Your task to perform on an android device: read, delete, or share a saved page in the chrome app Image 0: 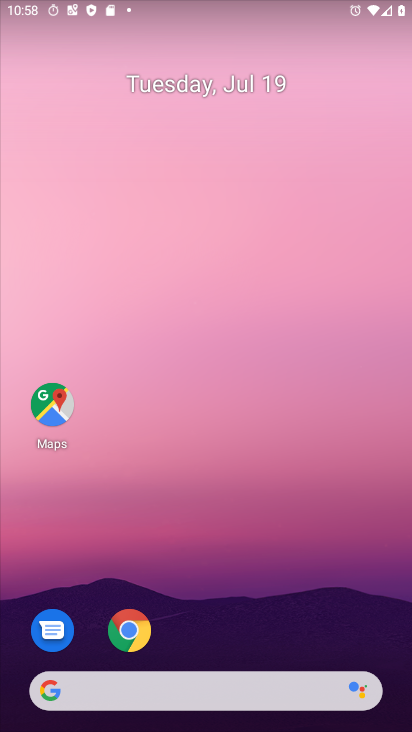
Step 0: press home button
Your task to perform on an android device: read, delete, or share a saved page in the chrome app Image 1: 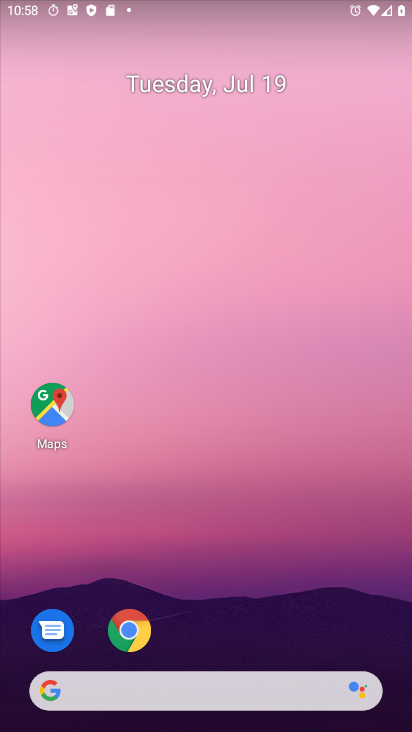
Step 1: click (142, 626)
Your task to perform on an android device: read, delete, or share a saved page in the chrome app Image 2: 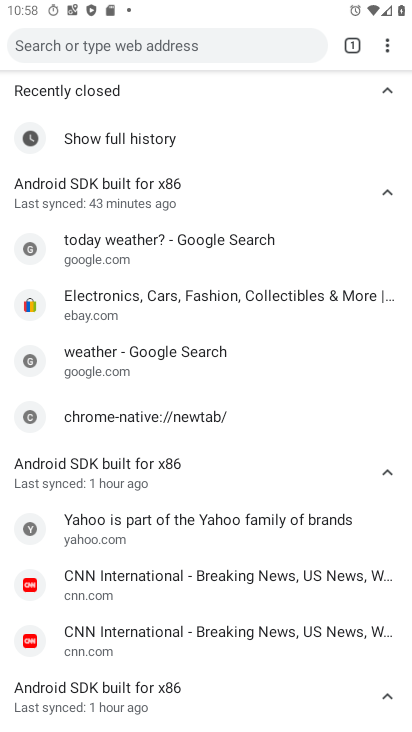
Step 2: click (385, 43)
Your task to perform on an android device: read, delete, or share a saved page in the chrome app Image 3: 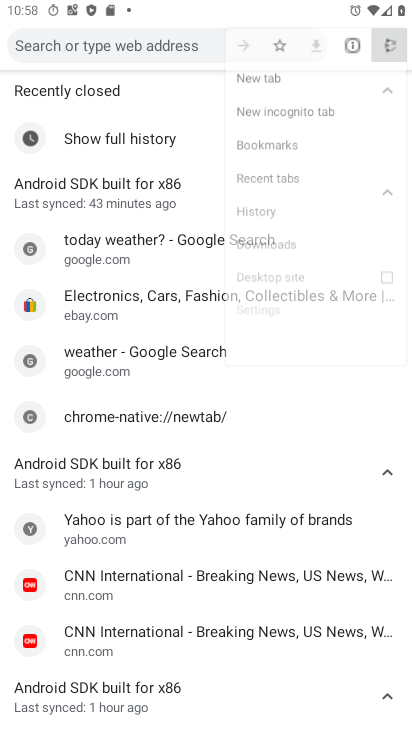
Step 3: drag from (385, 43) to (223, 292)
Your task to perform on an android device: read, delete, or share a saved page in the chrome app Image 4: 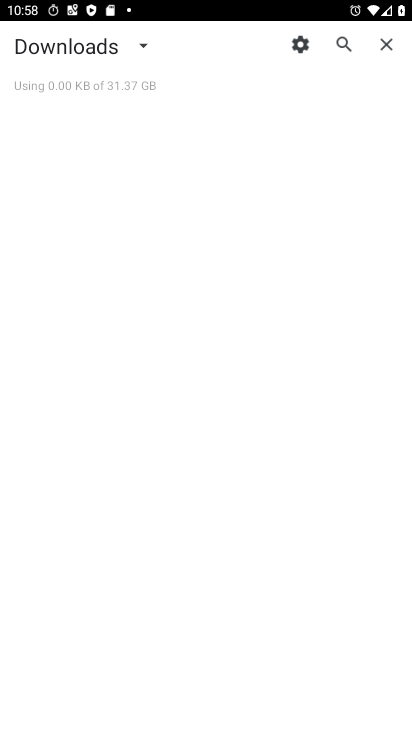
Step 4: click (144, 45)
Your task to perform on an android device: read, delete, or share a saved page in the chrome app Image 5: 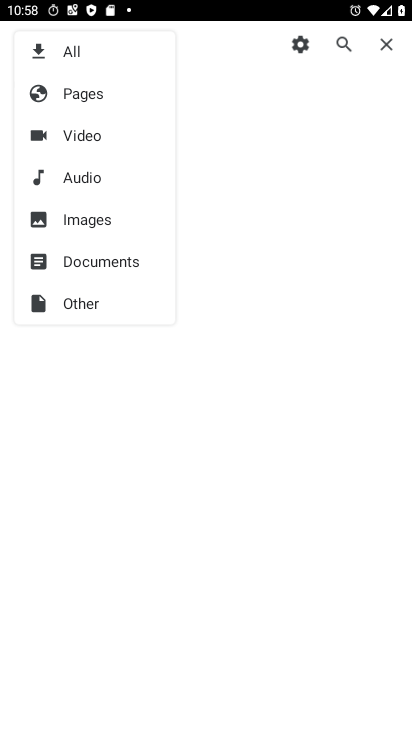
Step 5: click (144, 45)
Your task to perform on an android device: read, delete, or share a saved page in the chrome app Image 6: 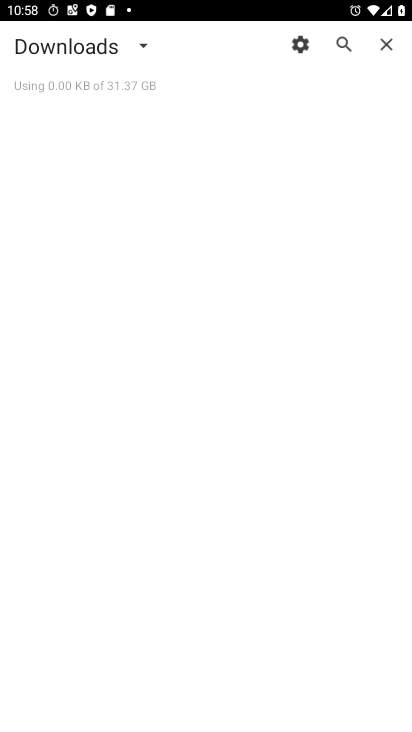
Step 6: task complete